Your task to perform on an android device: check battery use Image 0: 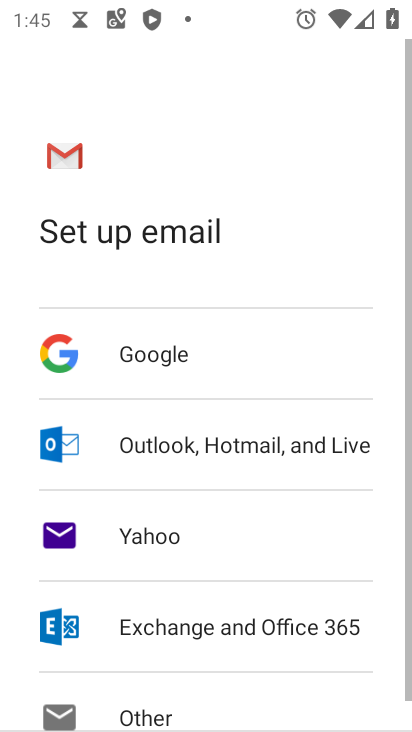
Step 0: press home button
Your task to perform on an android device: check battery use Image 1: 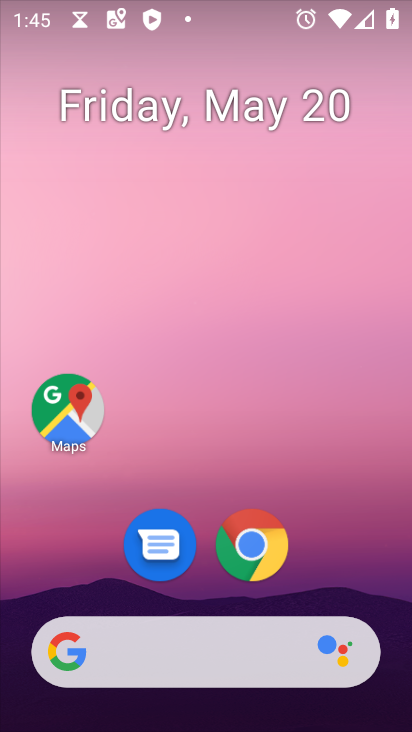
Step 1: drag from (322, 577) to (283, 159)
Your task to perform on an android device: check battery use Image 2: 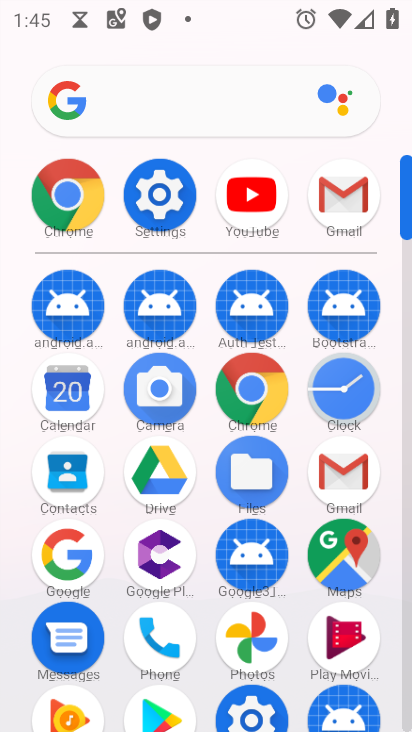
Step 2: click (166, 206)
Your task to perform on an android device: check battery use Image 3: 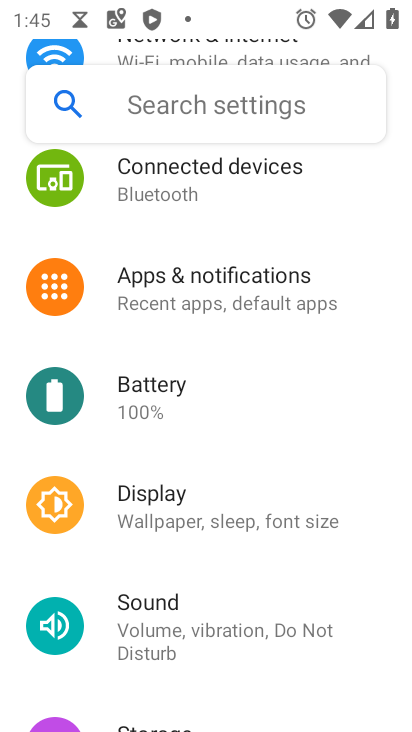
Step 3: click (160, 401)
Your task to perform on an android device: check battery use Image 4: 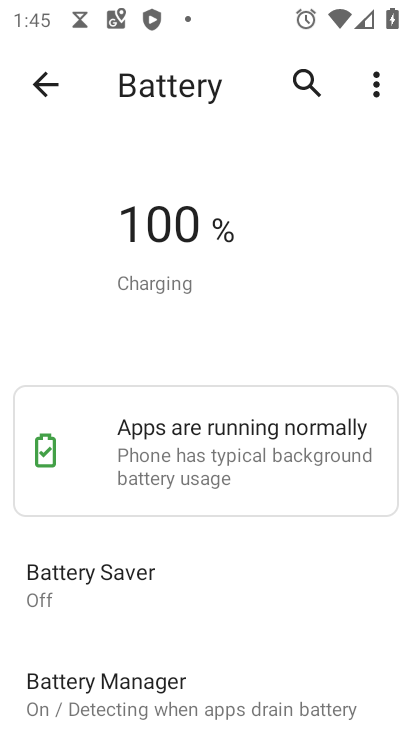
Step 4: click (382, 76)
Your task to perform on an android device: check battery use Image 5: 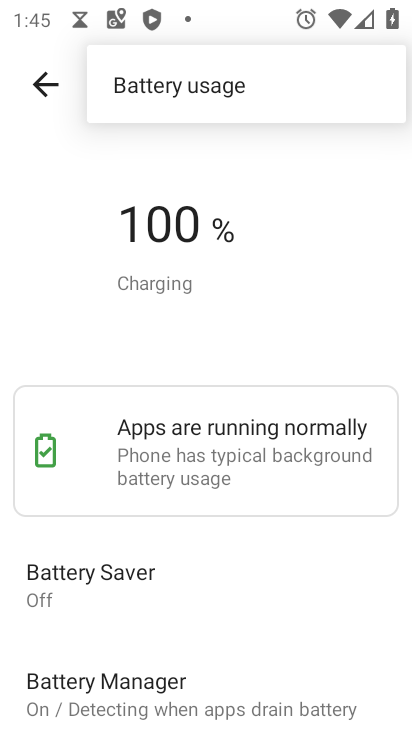
Step 5: click (264, 80)
Your task to perform on an android device: check battery use Image 6: 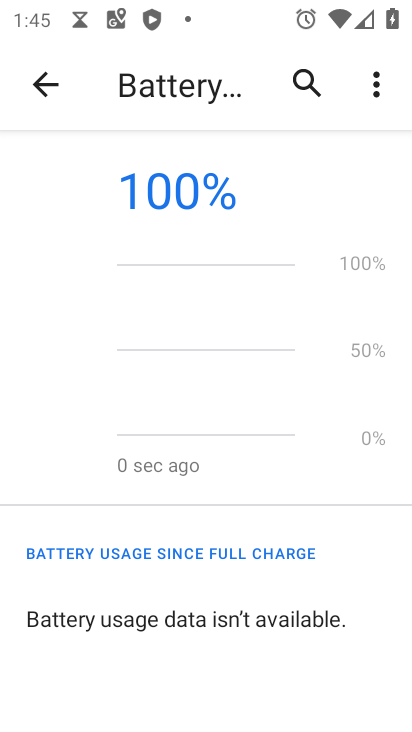
Step 6: task complete